Your task to perform on an android device: set the stopwatch Image 0: 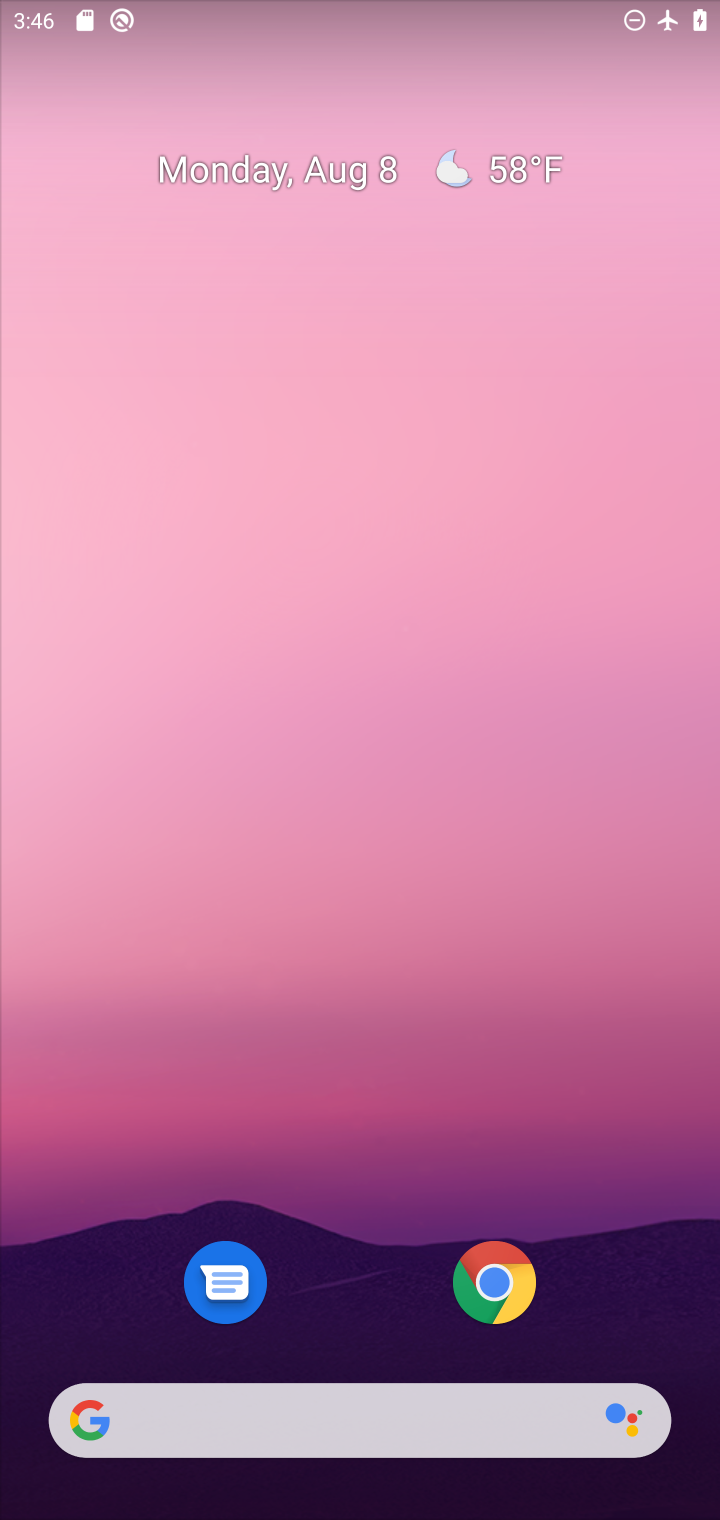
Step 0: drag from (497, 733) to (607, 93)
Your task to perform on an android device: set the stopwatch Image 1: 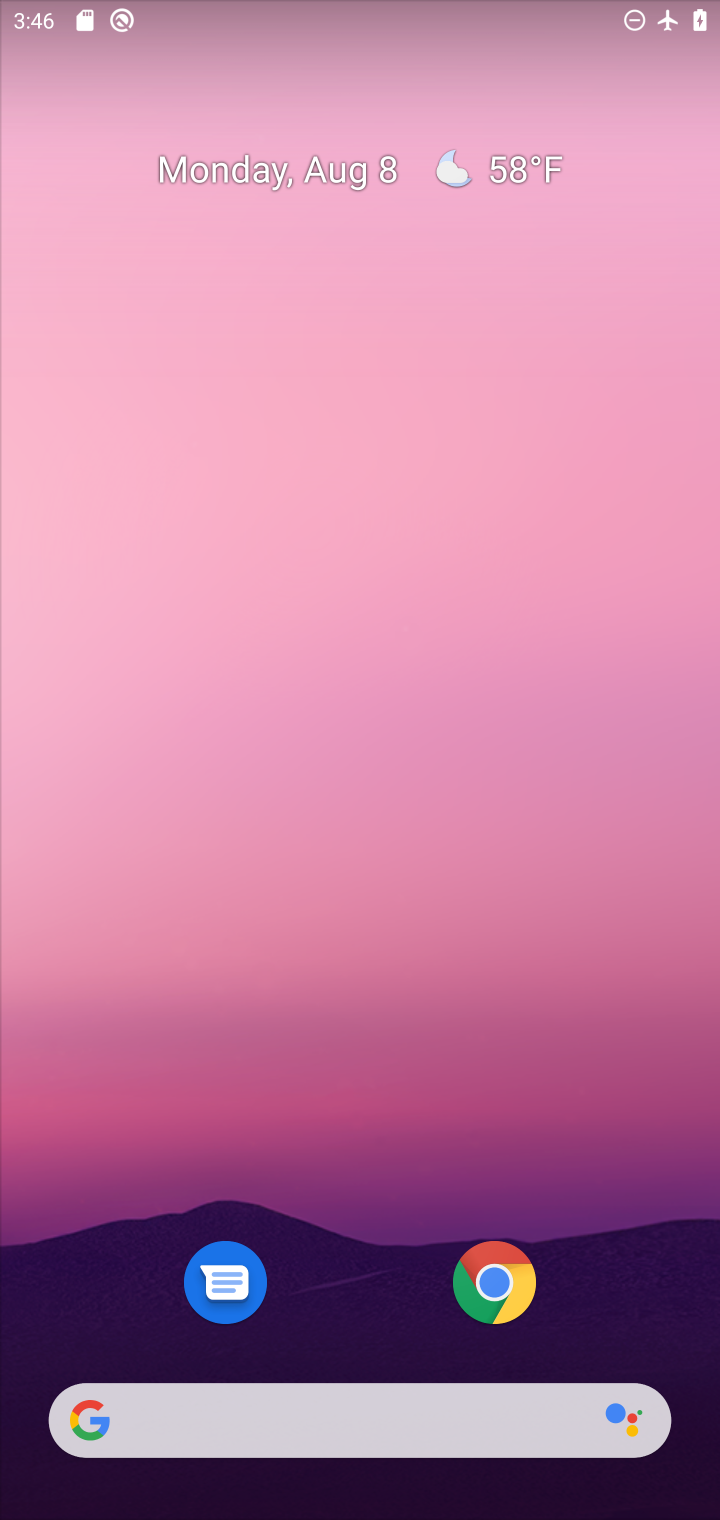
Step 1: drag from (436, 783) to (630, 71)
Your task to perform on an android device: set the stopwatch Image 2: 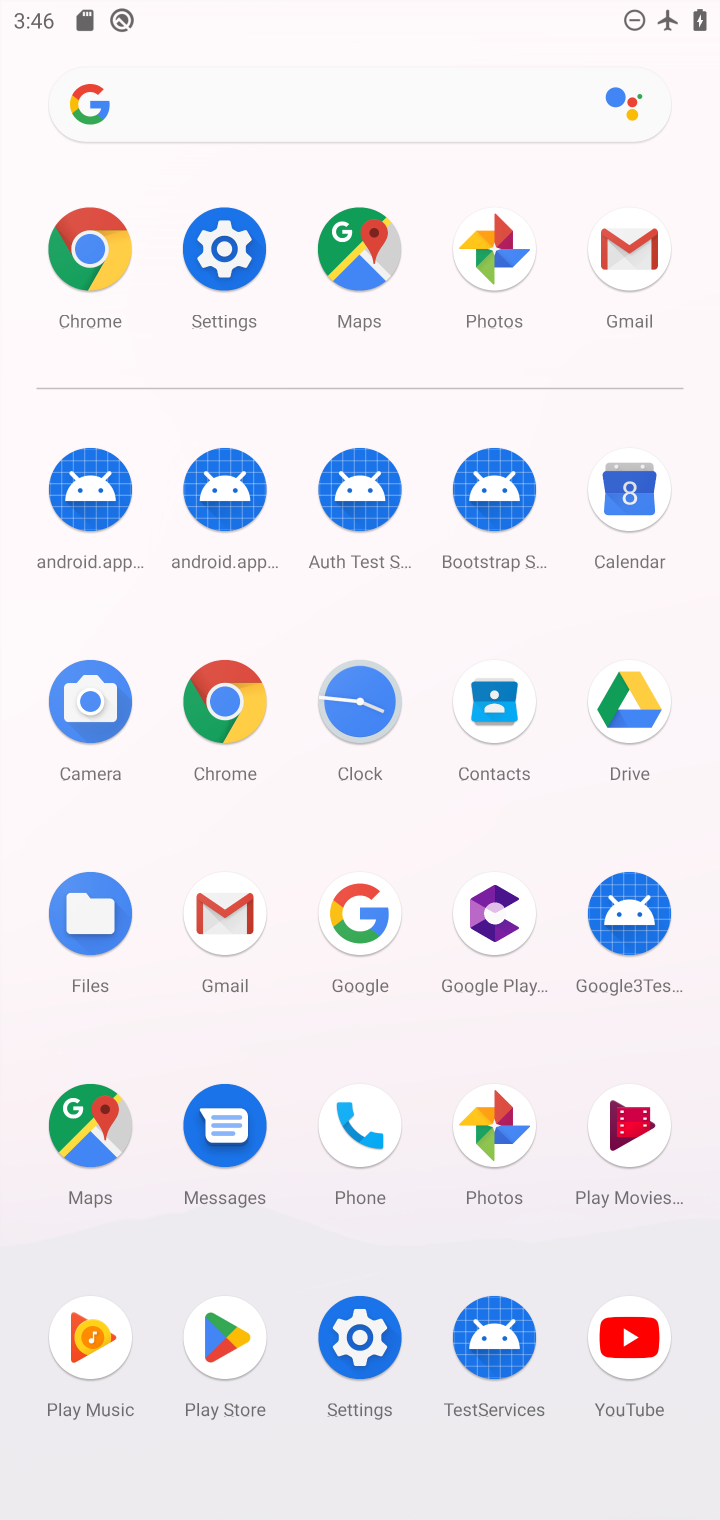
Step 2: click (359, 694)
Your task to perform on an android device: set the stopwatch Image 3: 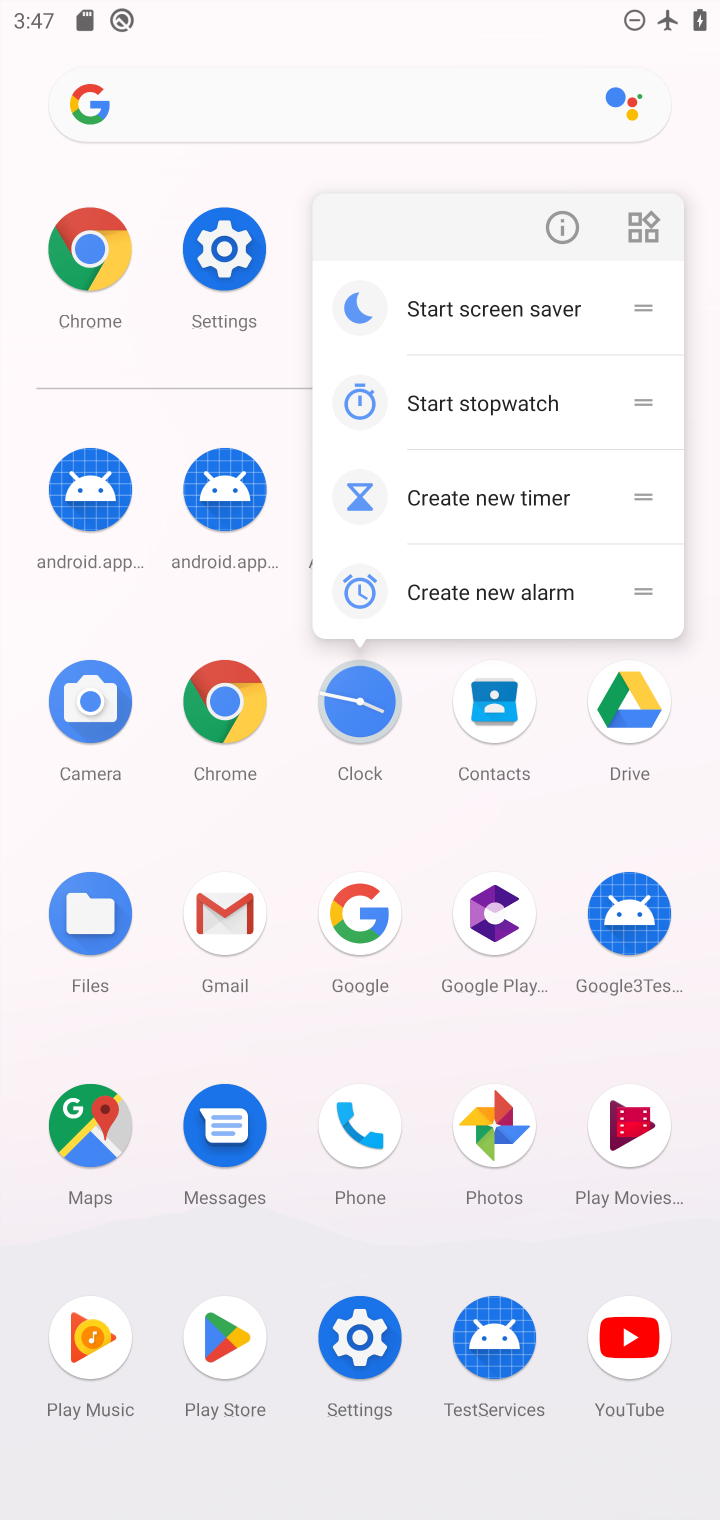
Step 3: click (354, 701)
Your task to perform on an android device: set the stopwatch Image 4: 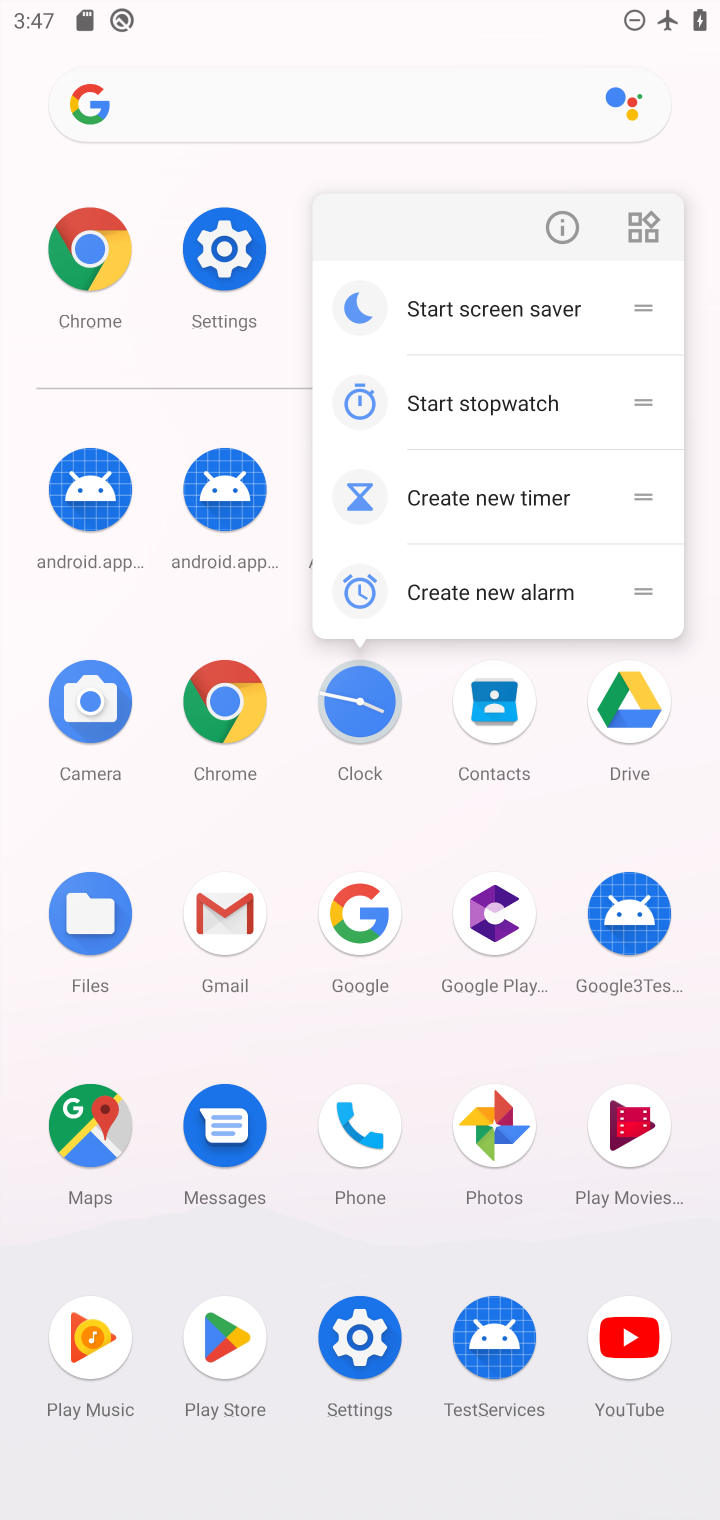
Step 4: click (356, 701)
Your task to perform on an android device: set the stopwatch Image 5: 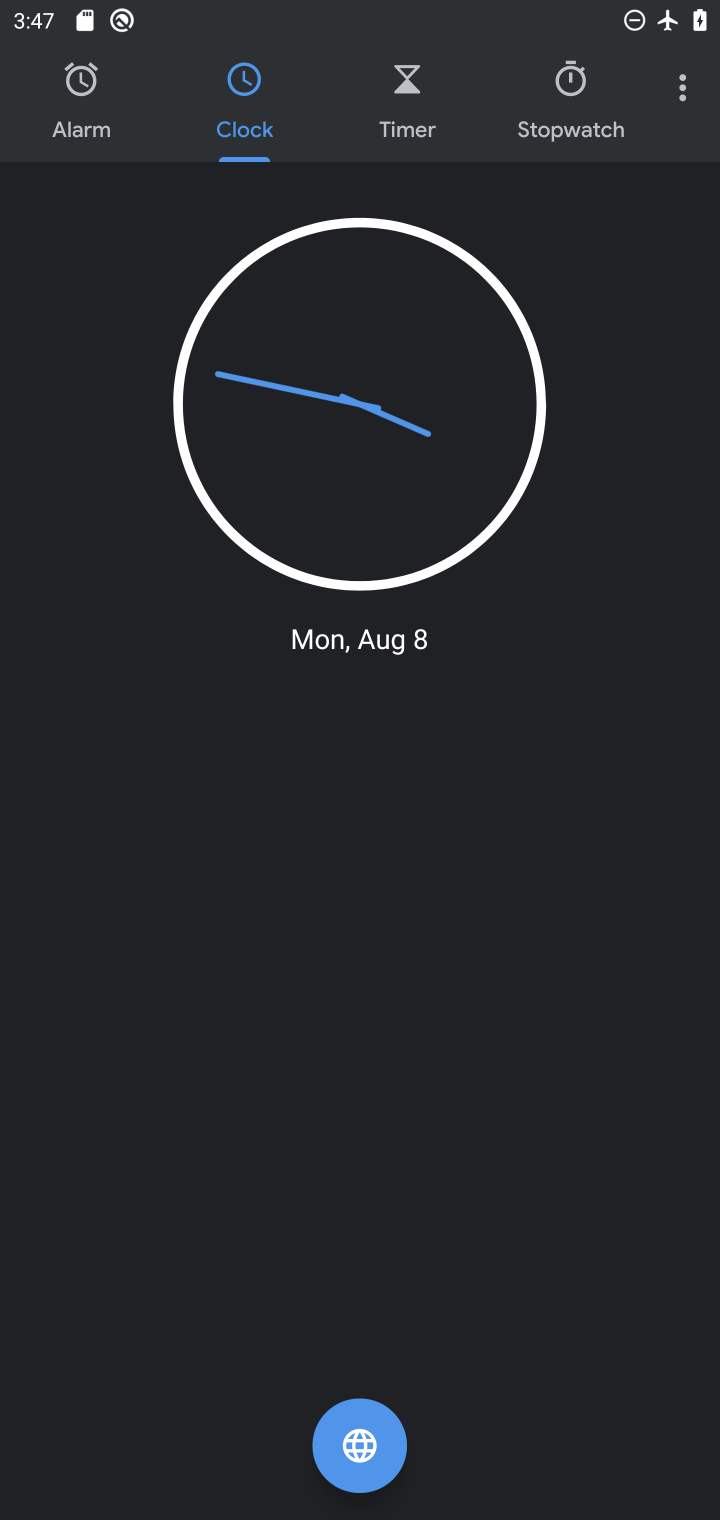
Step 5: click (542, 143)
Your task to perform on an android device: set the stopwatch Image 6: 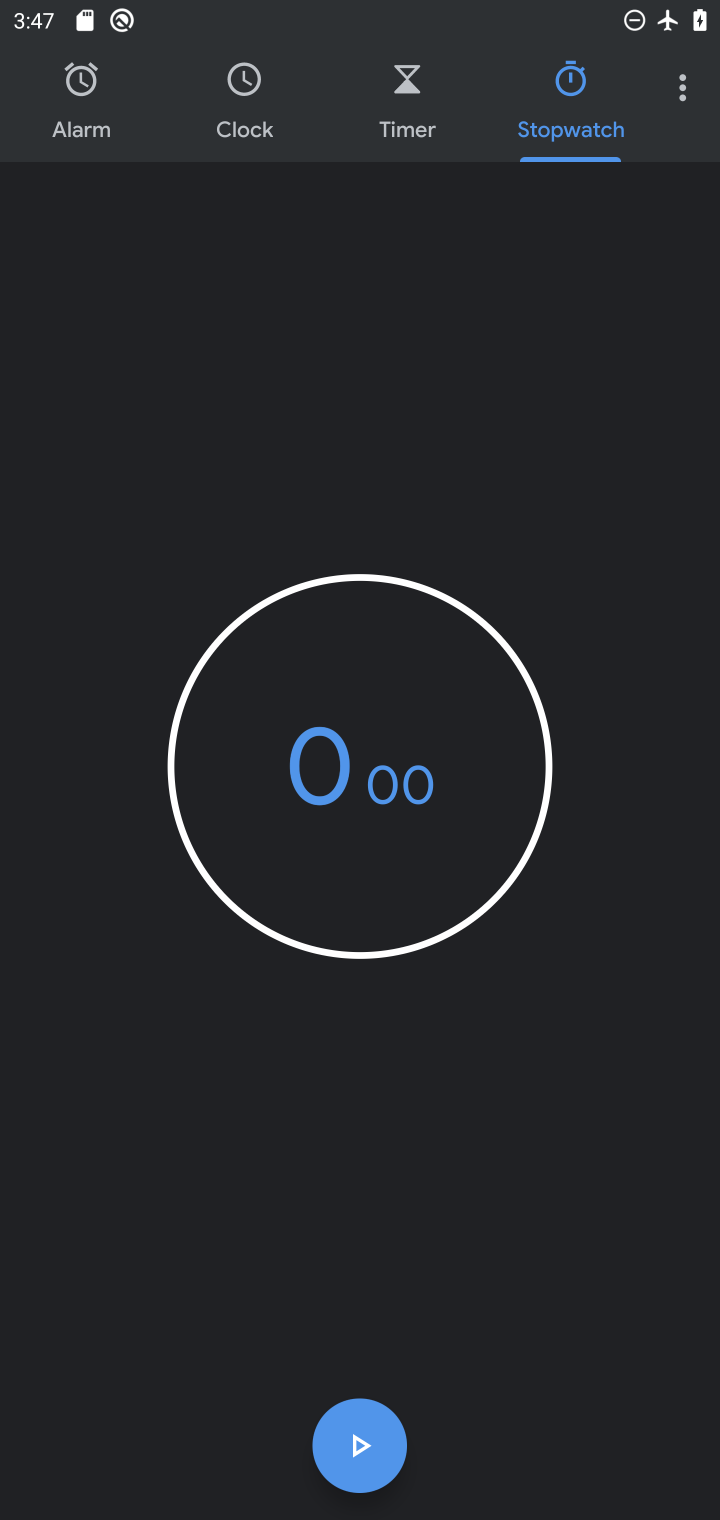
Step 6: click (352, 1450)
Your task to perform on an android device: set the stopwatch Image 7: 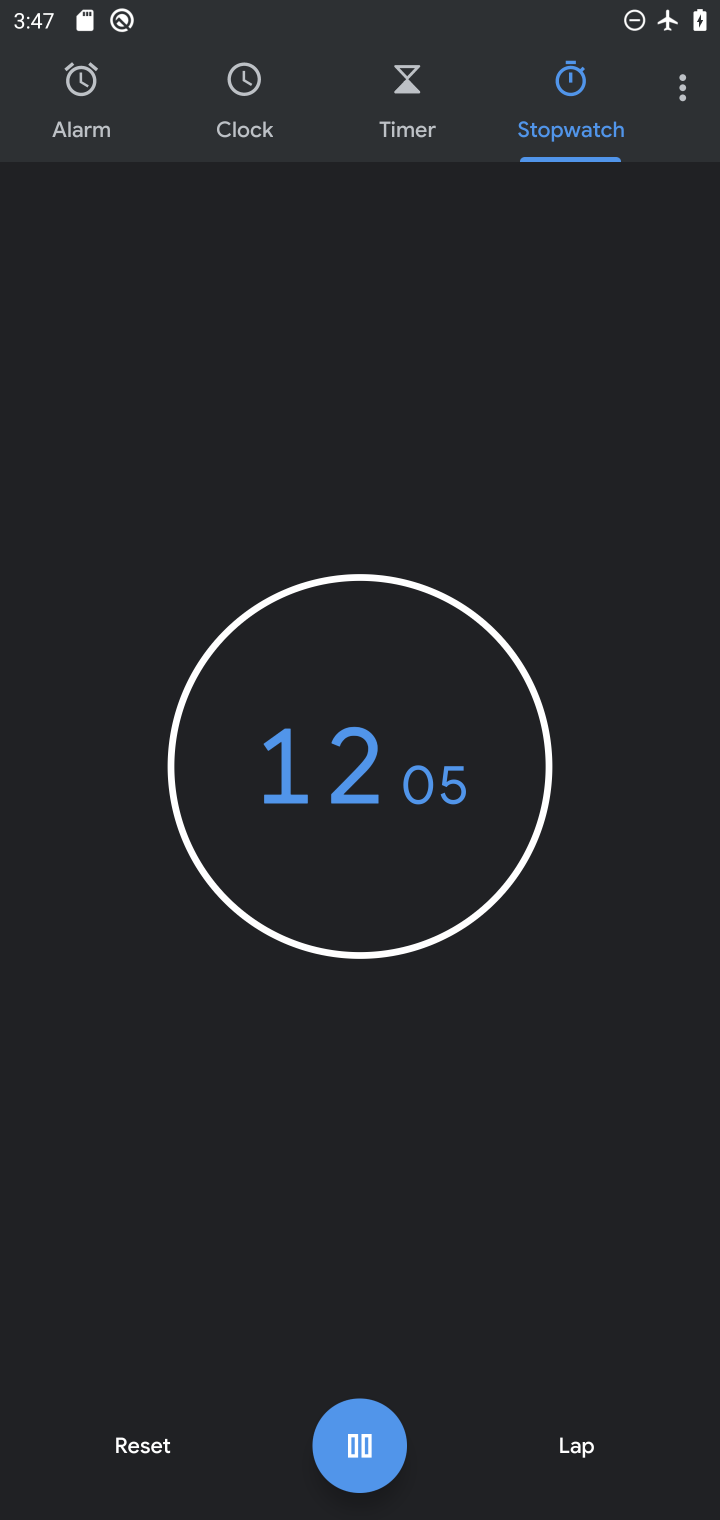
Step 7: click (358, 1429)
Your task to perform on an android device: set the stopwatch Image 8: 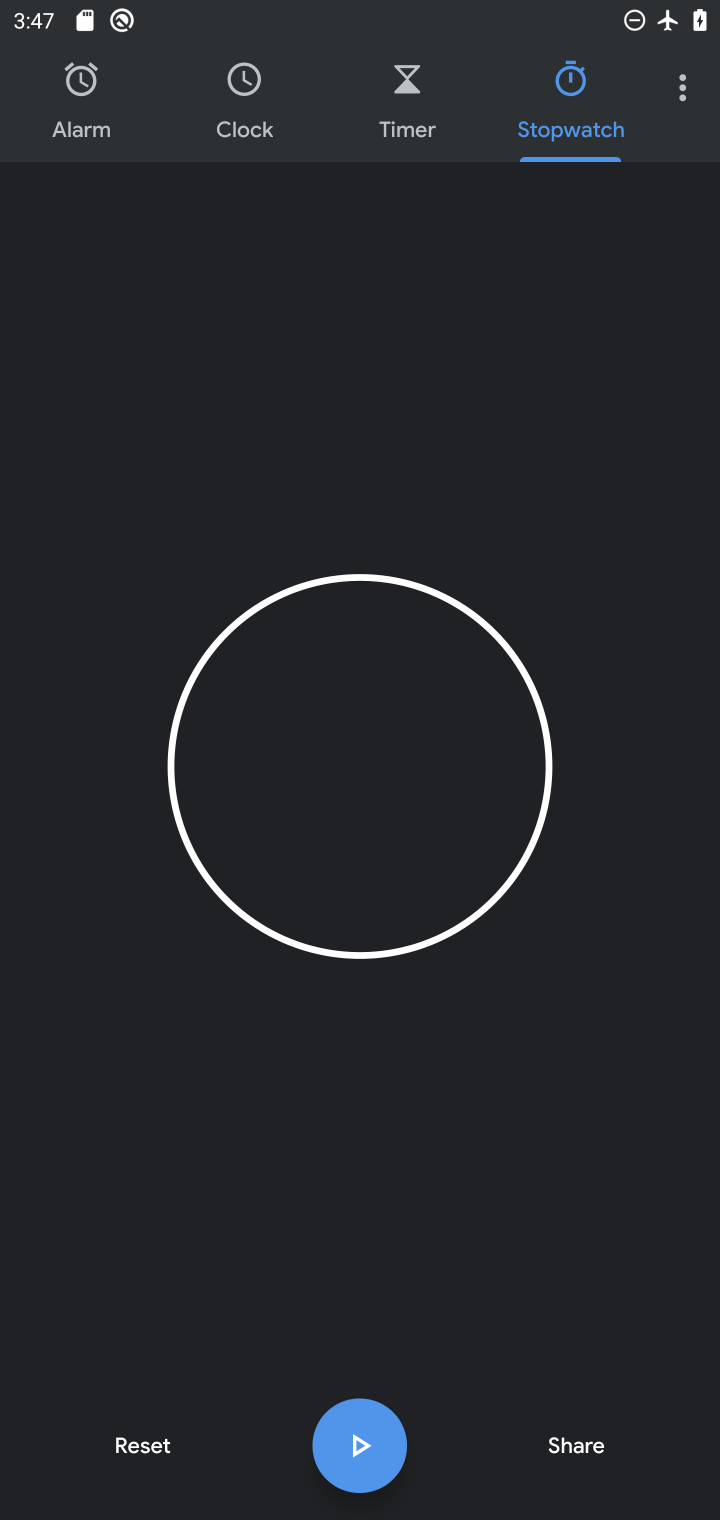
Step 8: task complete